Your task to perform on an android device: Open accessibility settings Image 0: 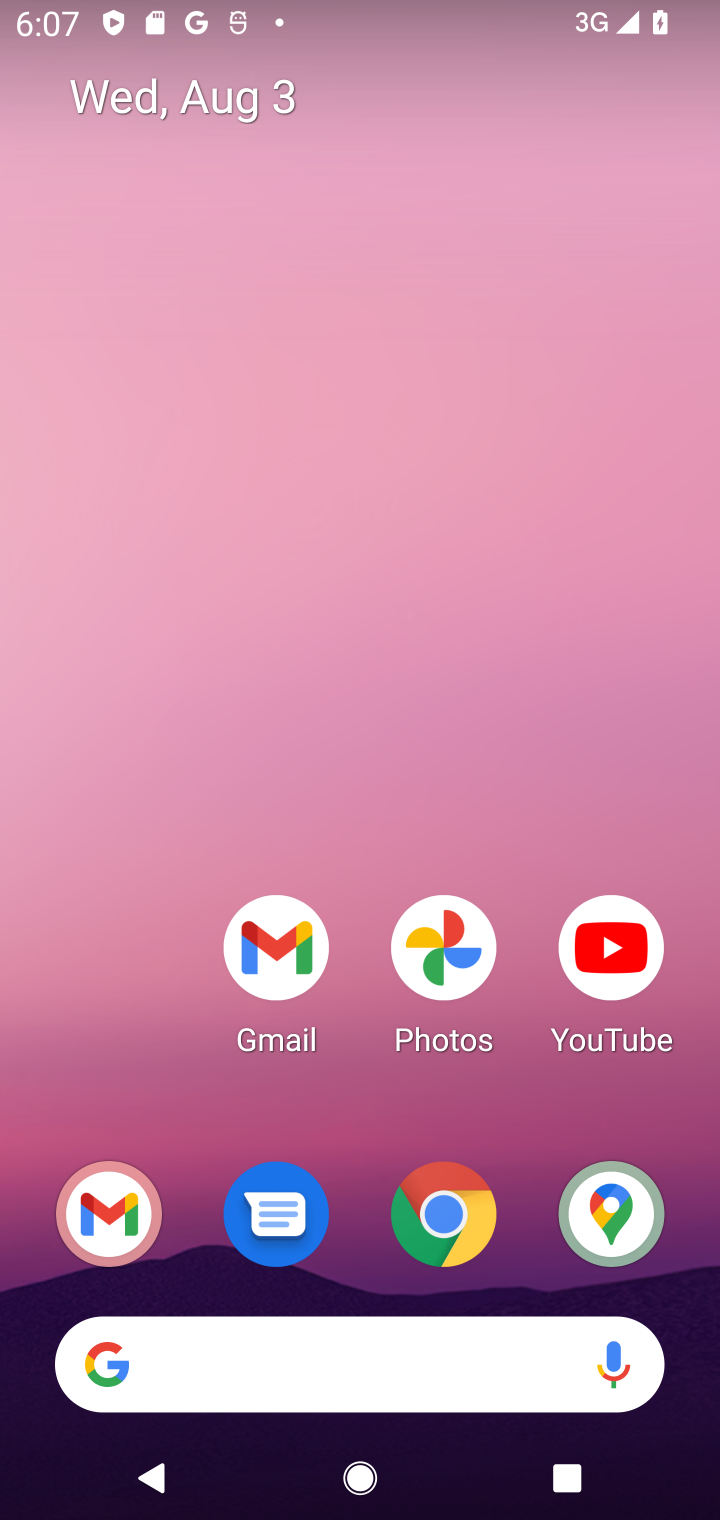
Step 0: drag from (347, 1154) to (313, 5)
Your task to perform on an android device: Open accessibility settings Image 1: 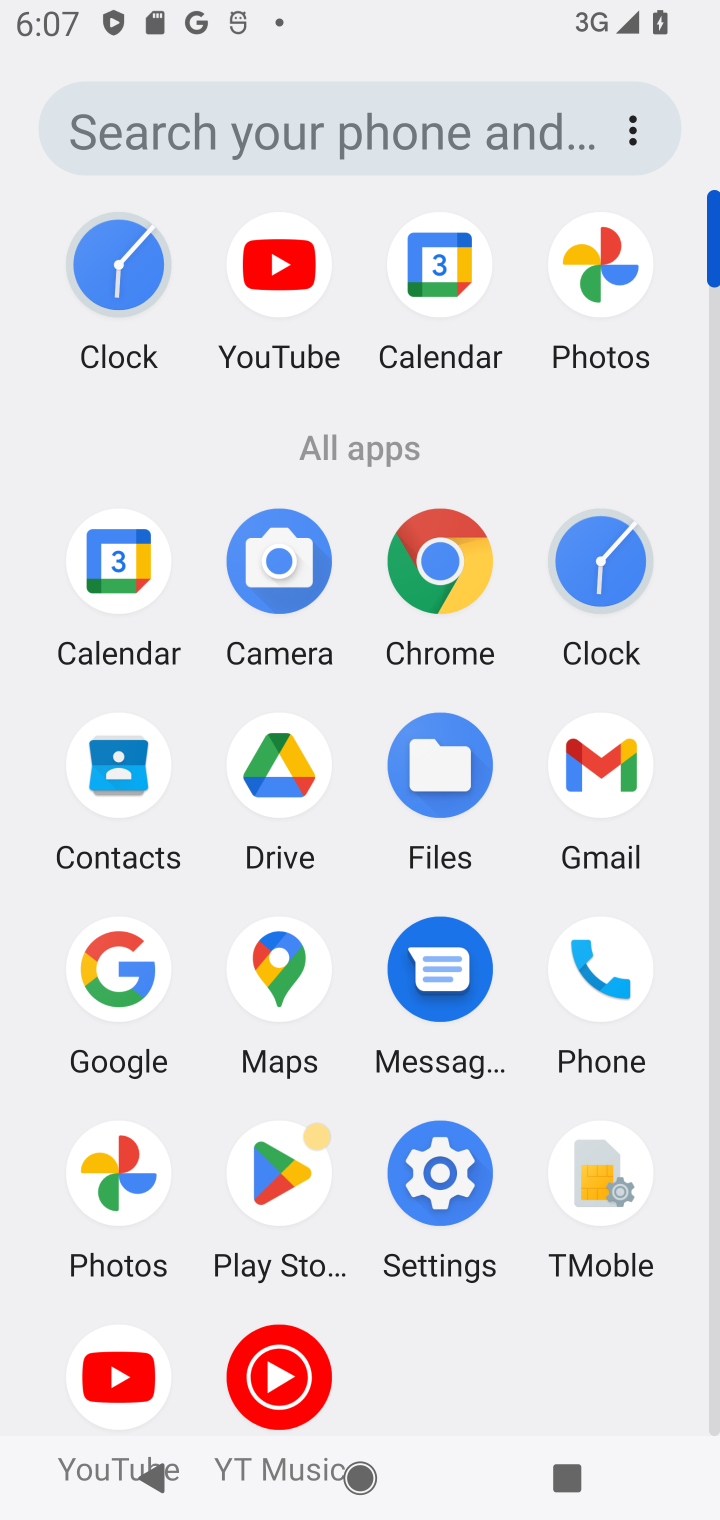
Step 1: click (428, 1157)
Your task to perform on an android device: Open accessibility settings Image 2: 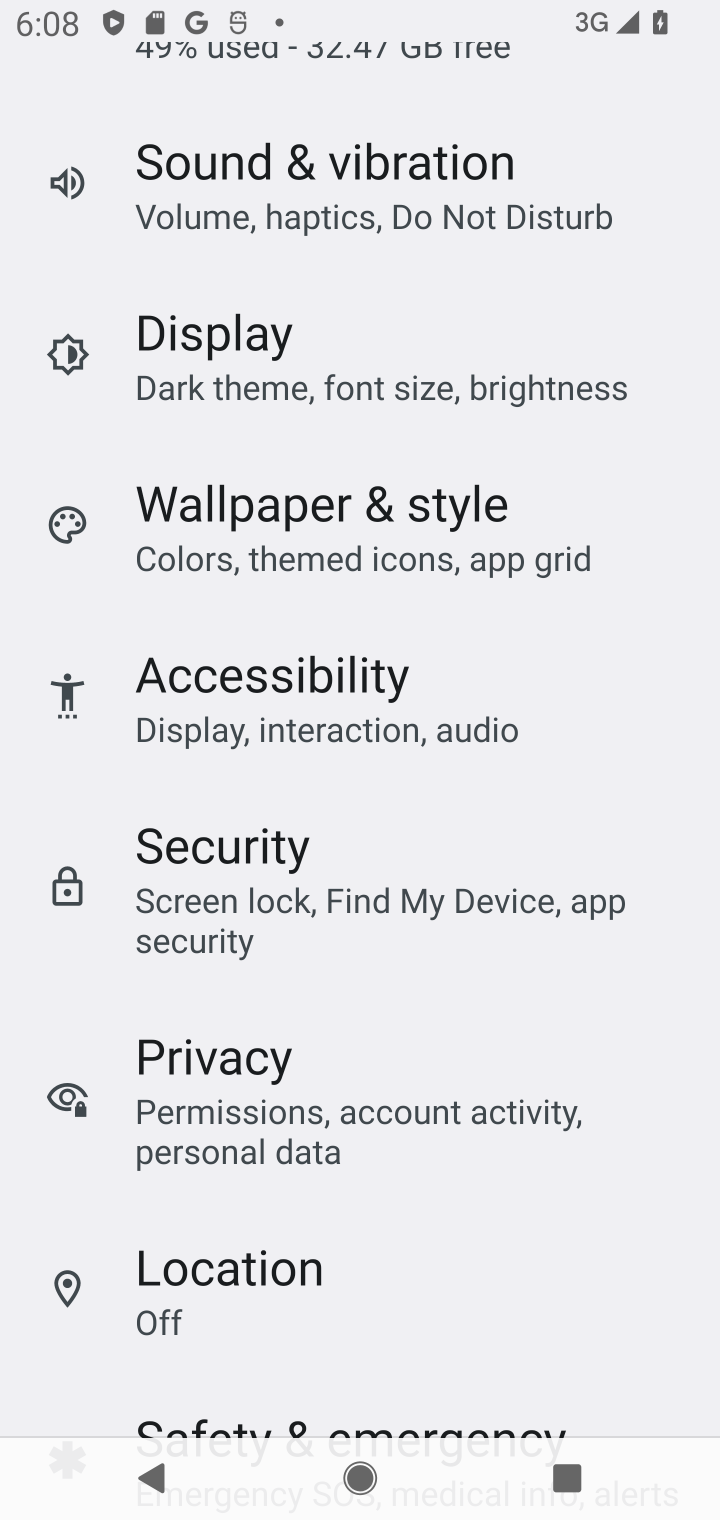
Step 2: drag from (361, 1321) to (333, 1131)
Your task to perform on an android device: Open accessibility settings Image 3: 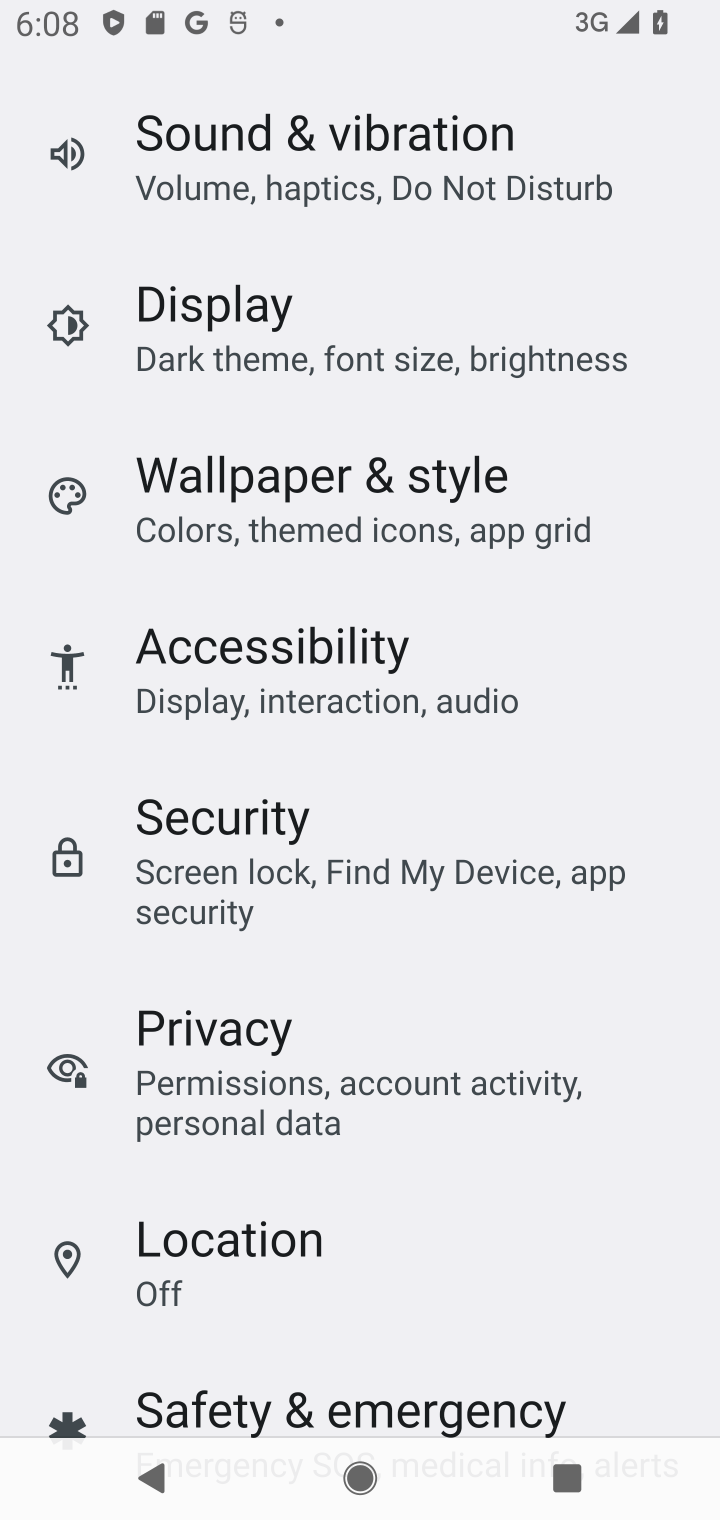
Step 3: click (433, 692)
Your task to perform on an android device: Open accessibility settings Image 4: 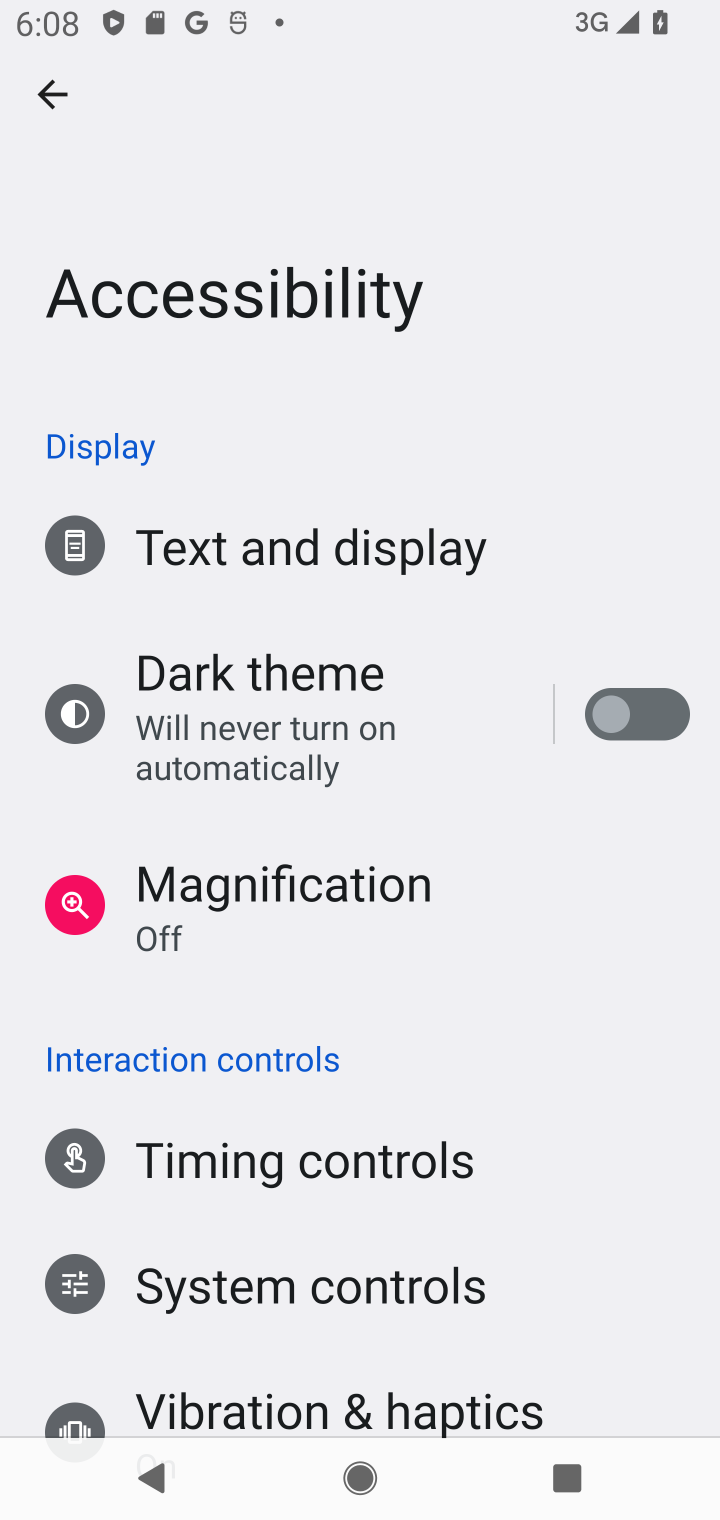
Step 4: task complete